Your task to perform on an android device: See recent photos Image 0: 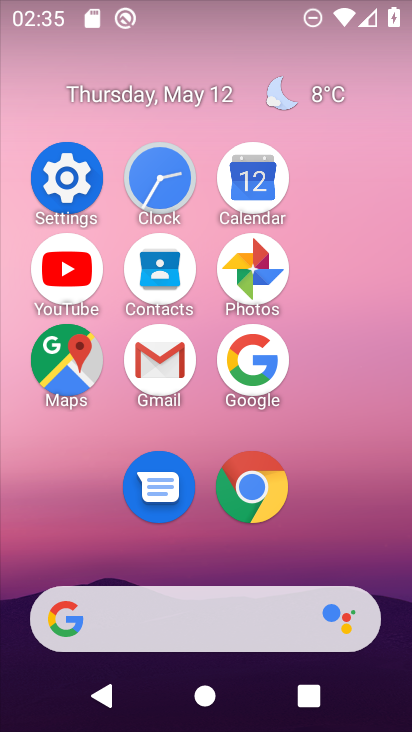
Step 0: click (273, 267)
Your task to perform on an android device: See recent photos Image 1: 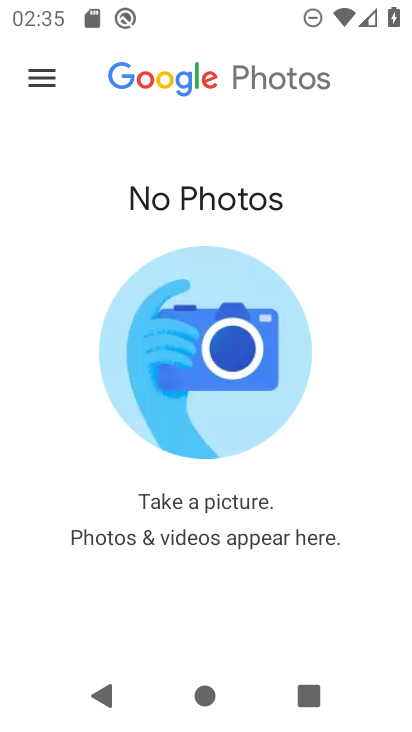
Step 1: task complete